Your task to perform on an android device: Open Google Chrome and click the shortcut for Amazon.com Image 0: 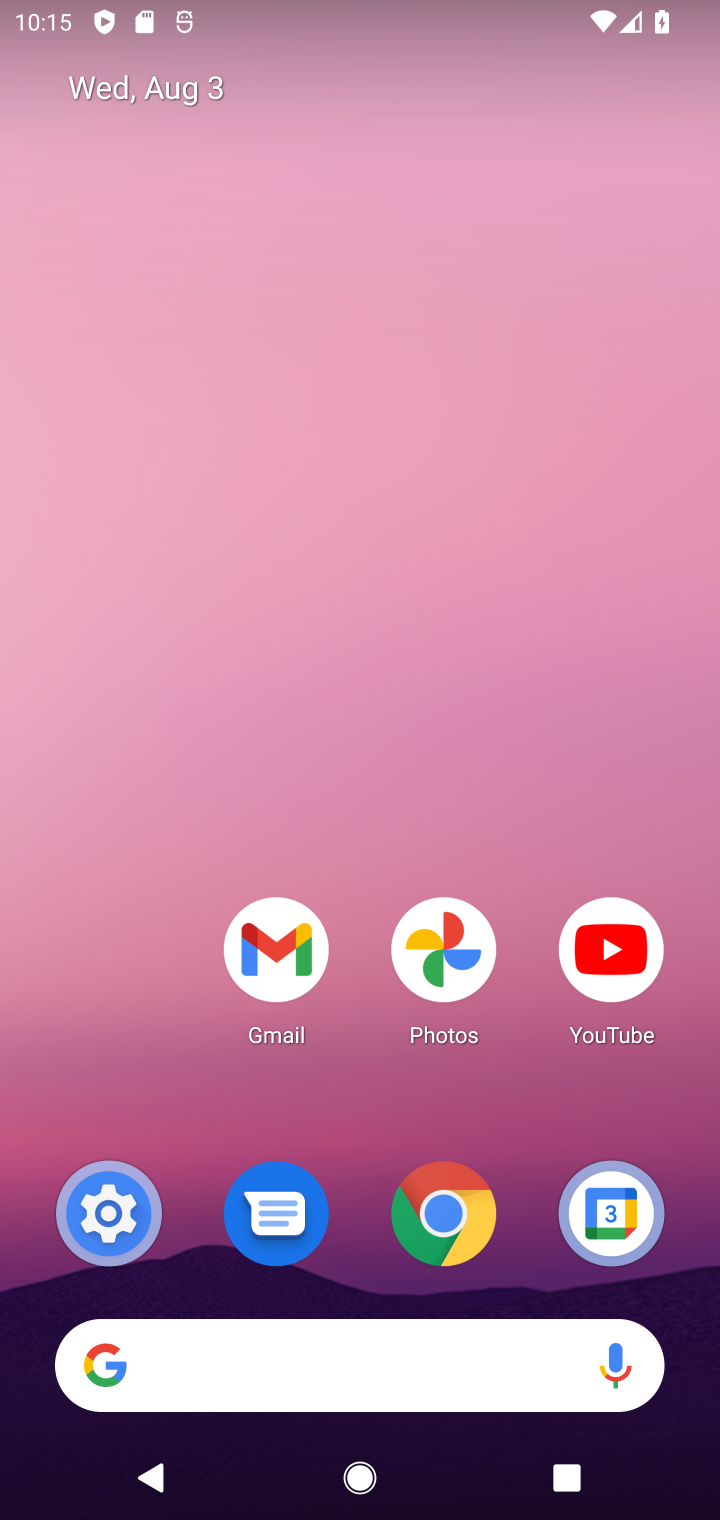
Step 0: click (452, 1198)
Your task to perform on an android device: Open Google Chrome and click the shortcut for Amazon.com Image 1: 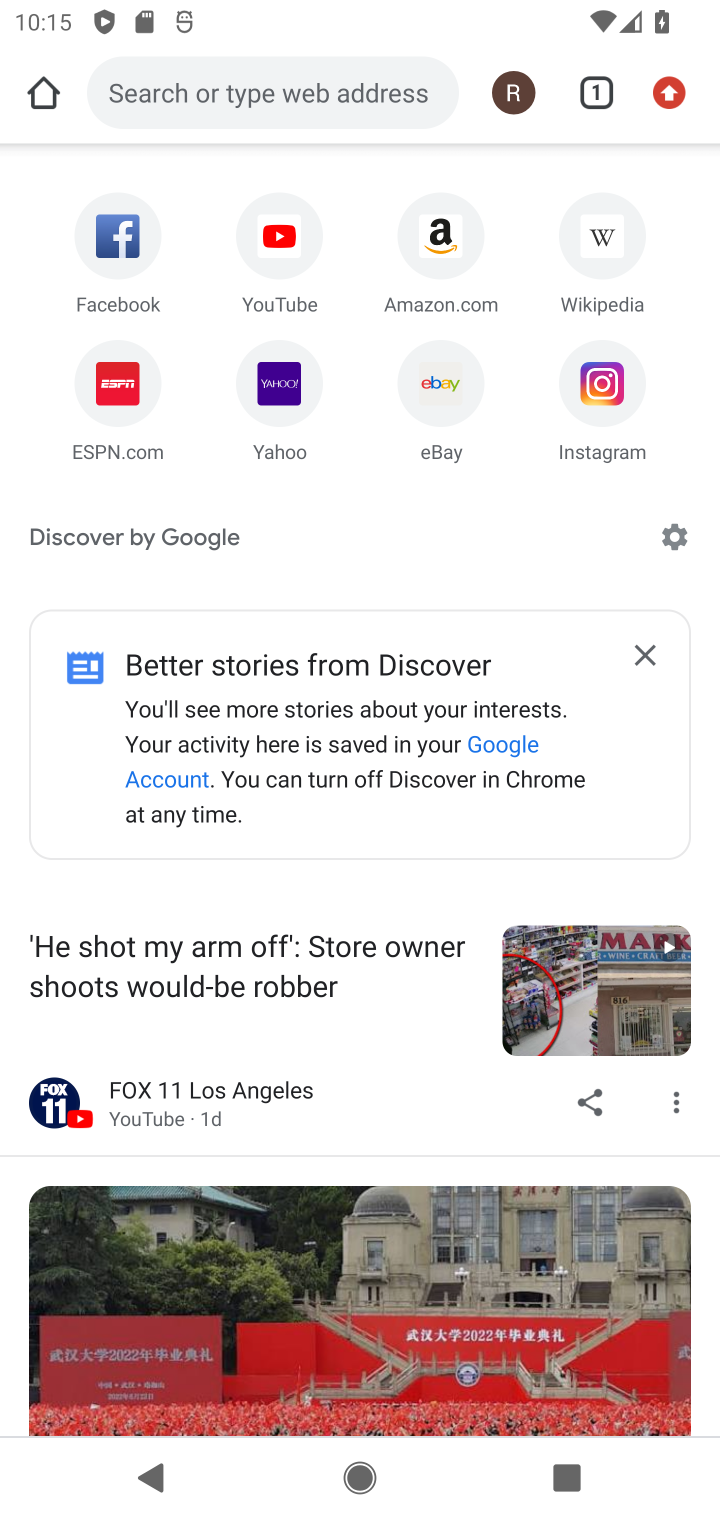
Step 1: click (443, 249)
Your task to perform on an android device: Open Google Chrome and click the shortcut for Amazon.com Image 2: 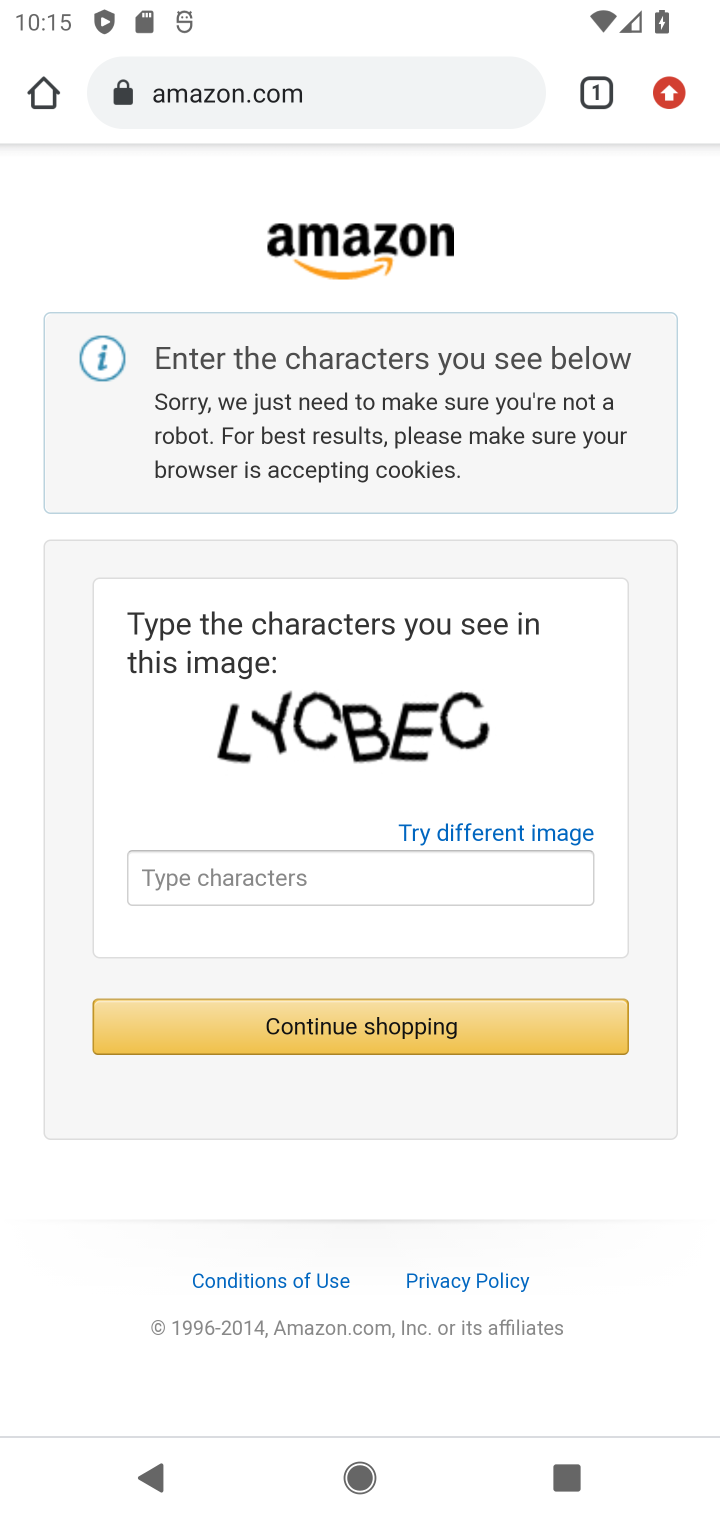
Step 2: task complete